Your task to perform on an android device: show emergency info Image 0: 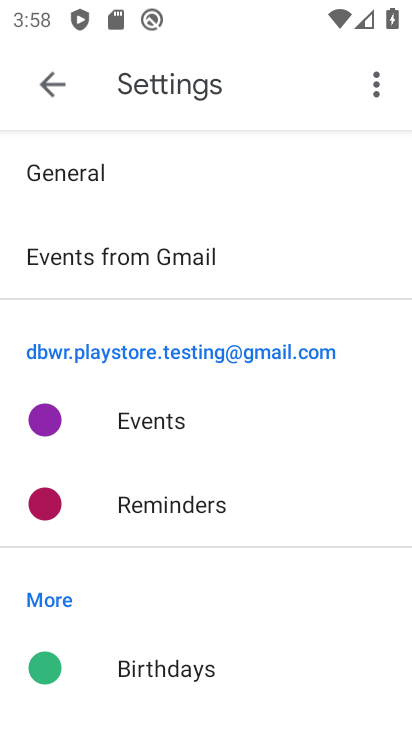
Step 0: press home button
Your task to perform on an android device: show emergency info Image 1: 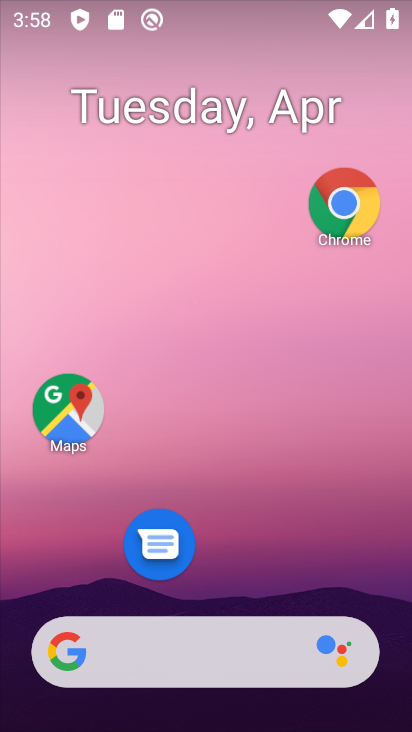
Step 1: drag from (229, 596) to (317, 2)
Your task to perform on an android device: show emergency info Image 2: 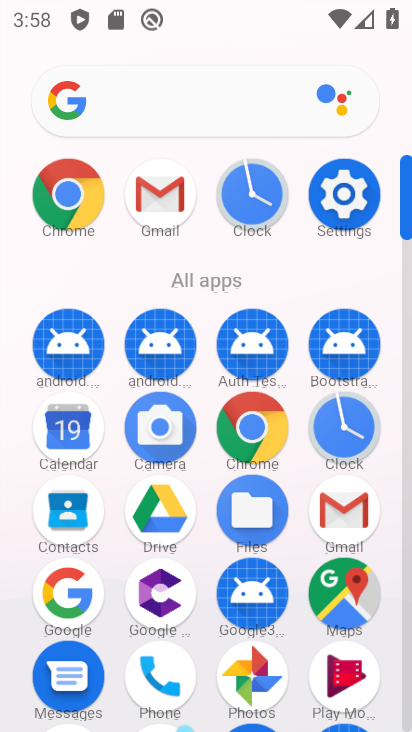
Step 2: click (348, 212)
Your task to perform on an android device: show emergency info Image 3: 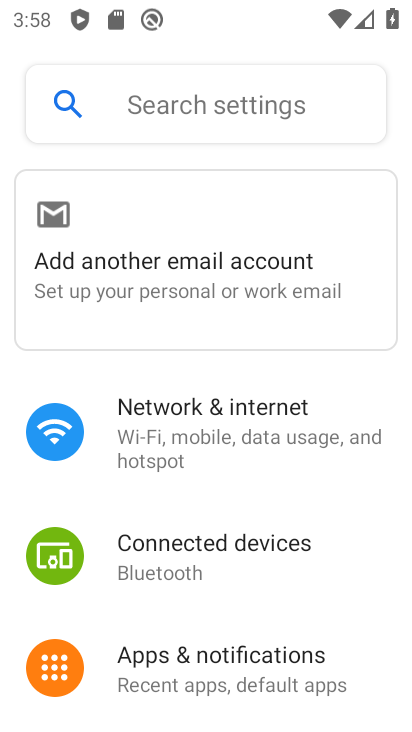
Step 3: drag from (291, 128) to (316, 36)
Your task to perform on an android device: show emergency info Image 4: 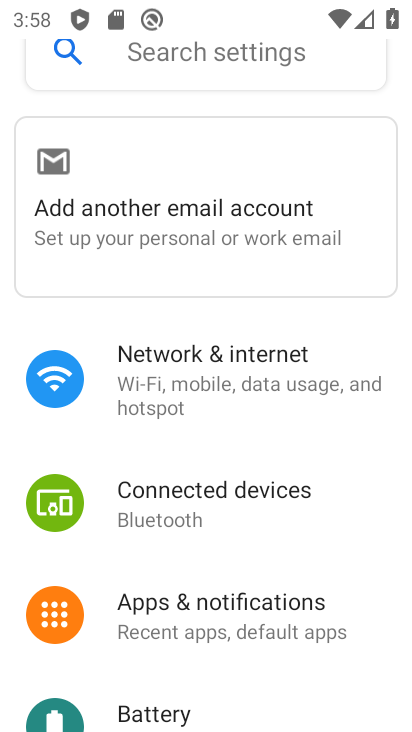
Step 4: drag from (207, 576) to (326, 8)
Your task to perform on an android device: show emergency info Image 5: 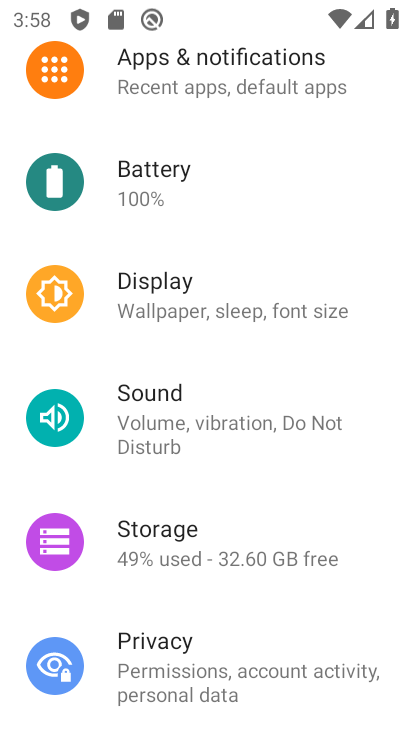
Step 5: drag from (225, 665) to (340, 18)
Your task to perform on an android device: show emergency info Image 6: 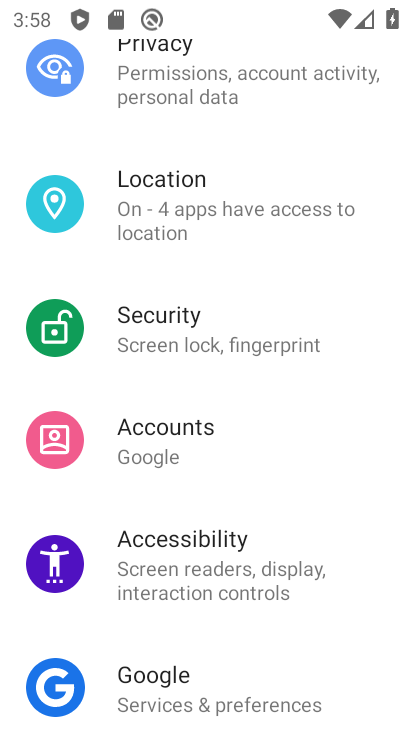
Step 6: drag from (227, 642) to (272, 67)
Your task to perform on an android device: show emergency info Image 7: 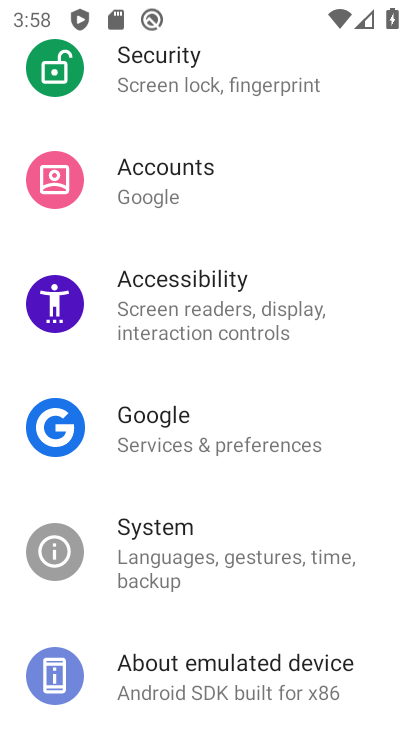
Step 7: drag from (192, 671) to (259, 263)
Your task to perform on an android device: show emergency info Image 8: 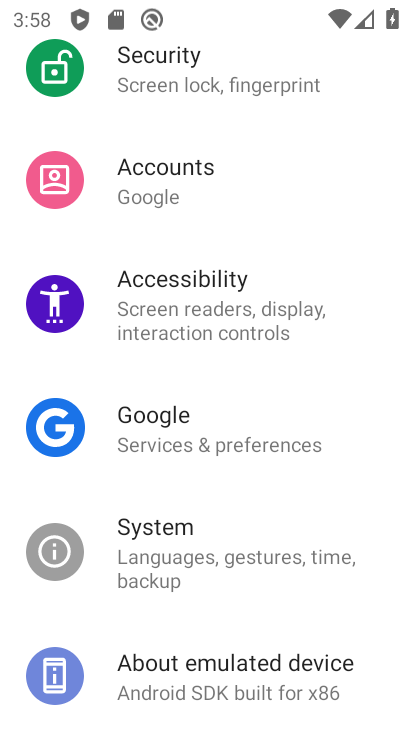
Step 8: click (206, 676)
Your task to perform on an android device: show emergency info Image 9: 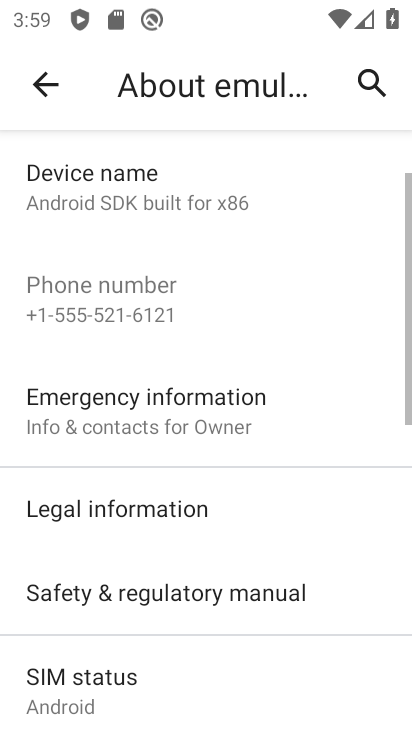
Step 9: click (180, 411)
Your task to perform on an android device: show emergency info Image 10: 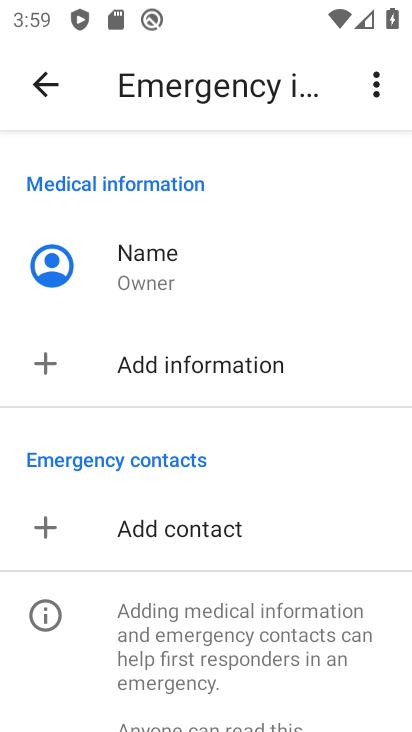
Step 10: task complete